Your task to perform on an android device: change text size in settings app Image 0: 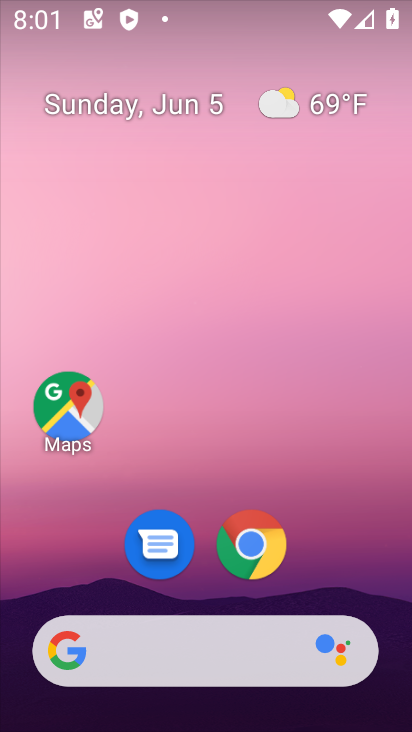
Step 0: drag from (361, 577) to (369, 187)
Your task to perform on an android device: change text size in settings app Image 1: 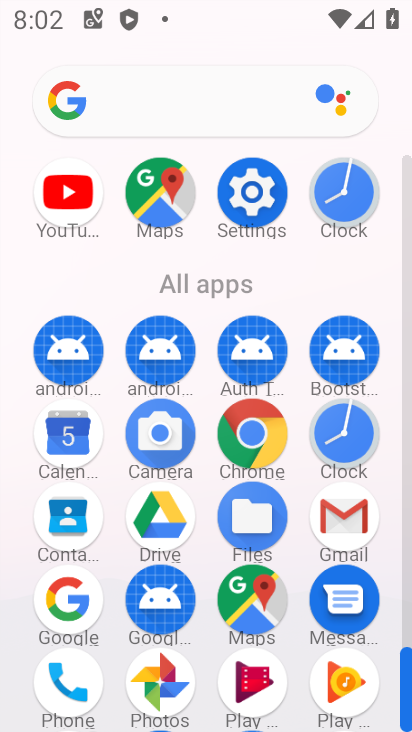
Step 1: click (262, 208)
Your task to perform on an android device: change text size in settings app Image 2: 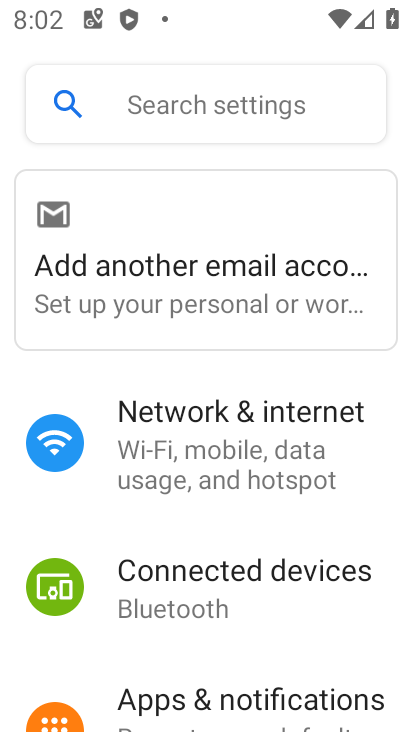
Step 2: drag from (362, 500) to (384, 379)
Your task to perform on an android device: change text size in settings app Image 3: 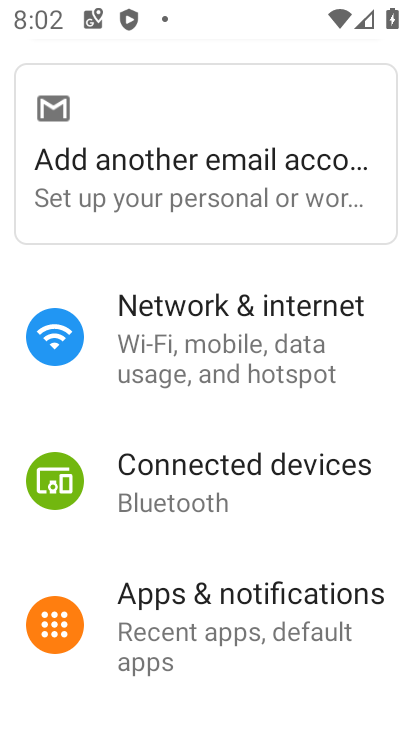
Step 3: drag from (355, 514) to (365, 416)
Your task to perform on an android device: change text size in settings app Image 4: 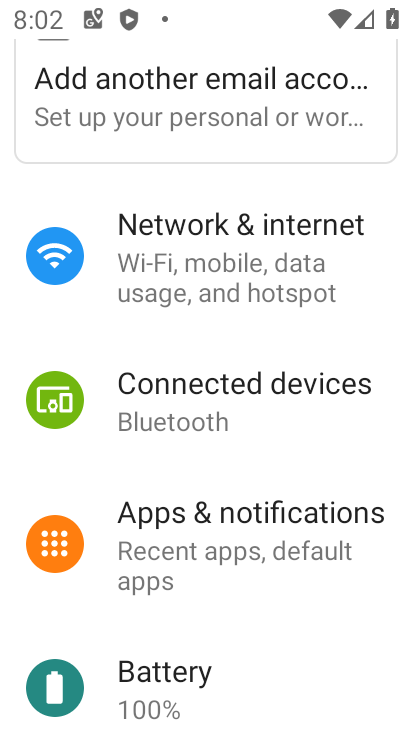
Step 4: drag from (375, 586) to (380, 488)
Your task to perform on an android device: change text size in settings app Image 5: 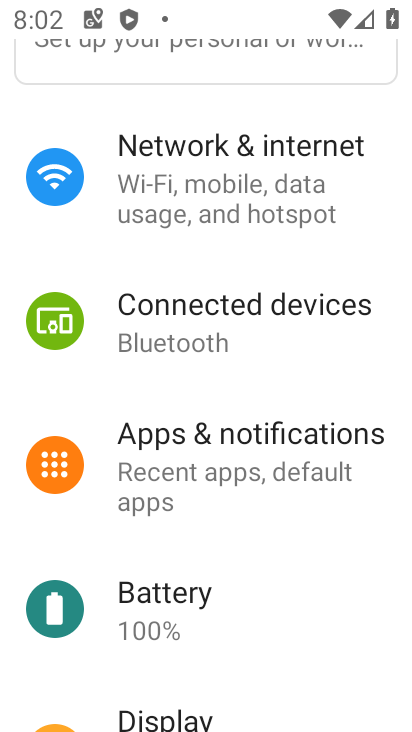
Step 5: drag from (336, 590) to (336, 483)
Your task to perform on an android device: change text size in settings app Image 6: 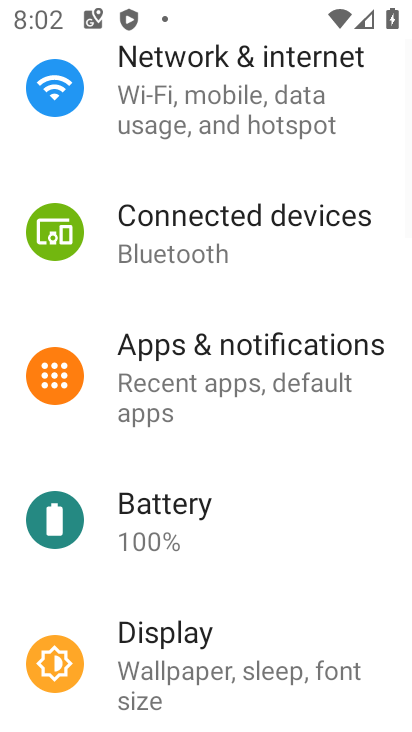
Step 6: drag from (326, 575) to (322, 471)
Your task to perform on an android device: change text size in settings app Image 7: 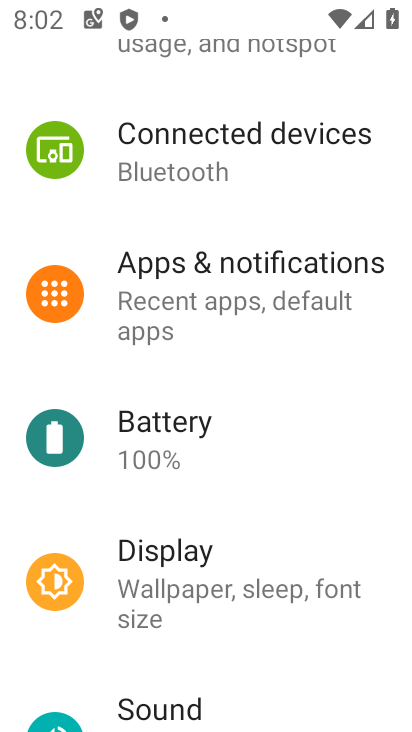
Step 7: drag from (342, 623) to (354, 463)
Your task to perform on an android device: change text size in settings app Image 8: 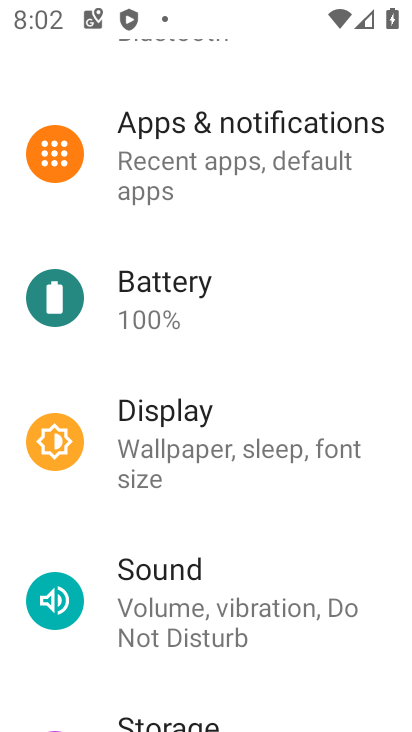
Step 8: drag from (355, 530) to (343, 351)
Your task to perform on an android device: change text size in settings app Image 9: 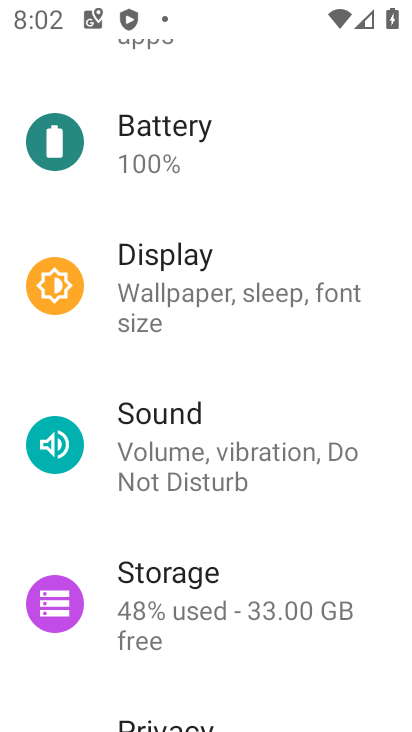
Step 9: drag from (347, 493) to (354, 377)
Your task to perform on an android device: change text size in settings app Image 10: 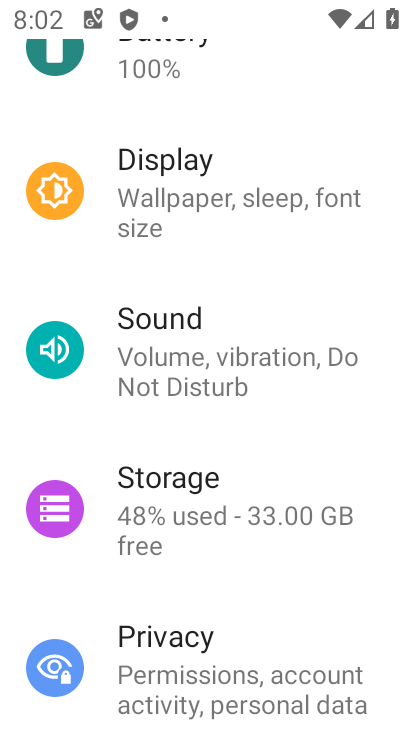
Step 10: click (229, 211)
Your task to perform on an android device: change text size in settings app Image 11: 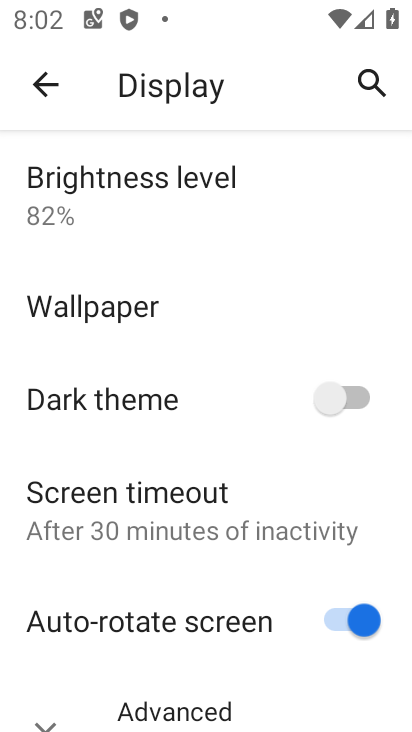
Step 11: drag from (274, 417) to (289, 281)
Your task to perform on an android device: change text size in settings app Image 12: 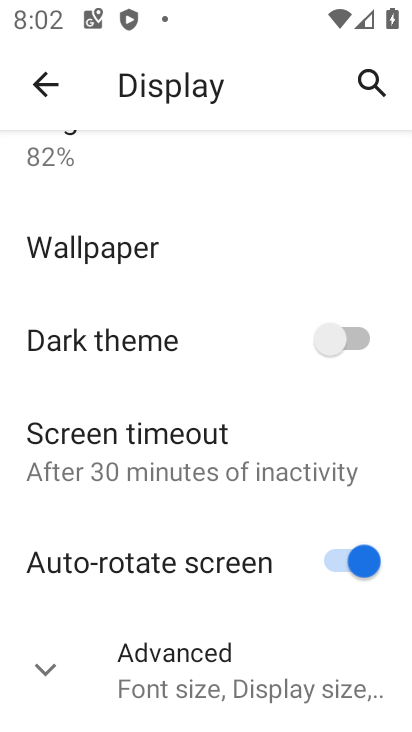
Step 12: click (207, 654)
Your task to perform on an android device: change text size in settings app Image 13: 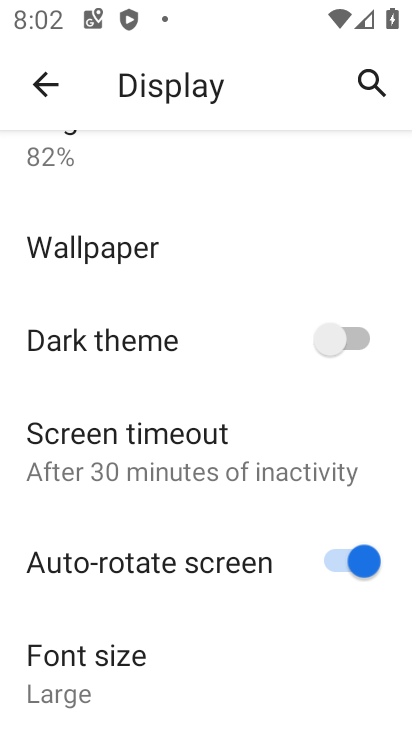
Step 13: drag from (279, 628) to (282, 490)
Your task to perform on an android device: change text size in settings app Image 14: 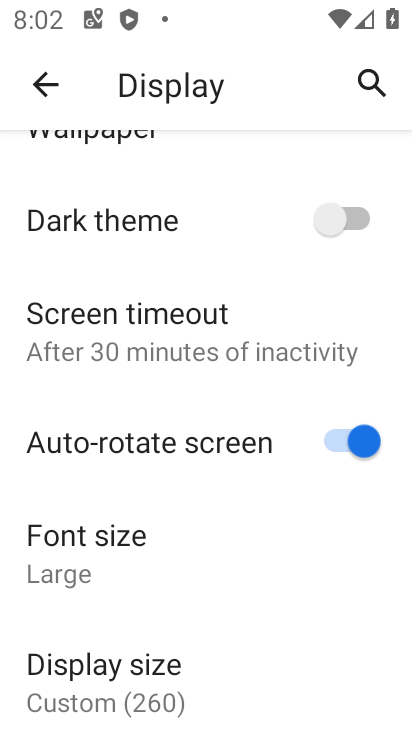
Step 14: click (135, 572)
Your task to perform on an android device: change text size in settings app Image 15: 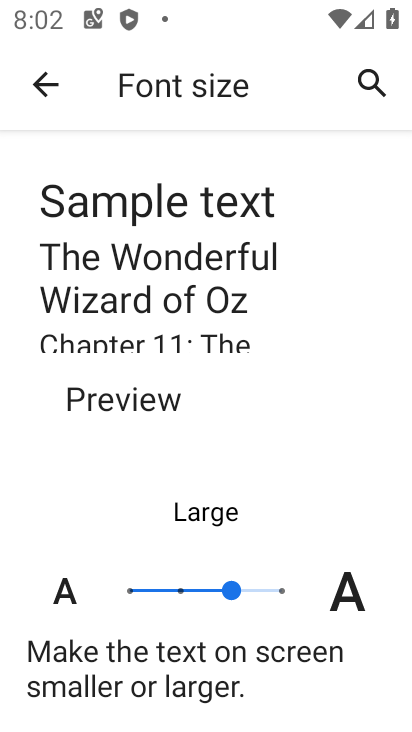
Step 15: click (188, 587)
Your task to perform on an android device: change text size in settings app Image 16: 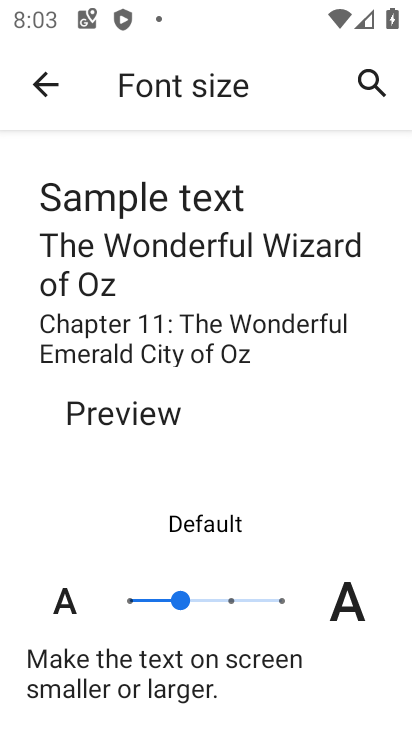
Step 16: task complete